Your task to perform on an android device: turn on showing notifications on the lock screen Image 0: 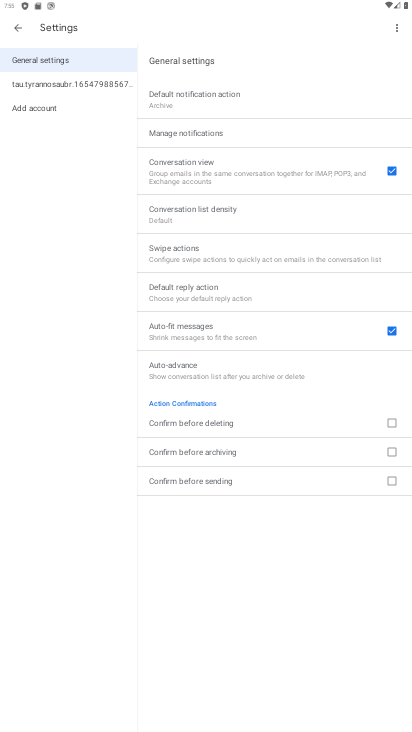
Step 0: press home button
Your task to perform on an android device: turn on showing notifications on the lock screen Image 1: 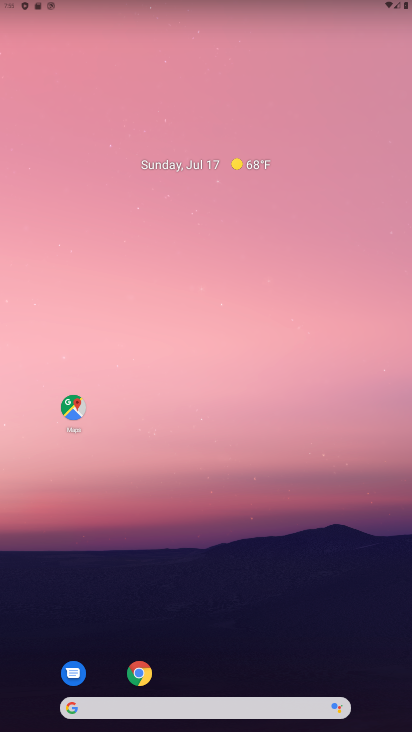
Step 1: drag from (213, 623) to (129, 88)
Your task to perform on an android device: turn on showing notifications on the lock screen Image 2: 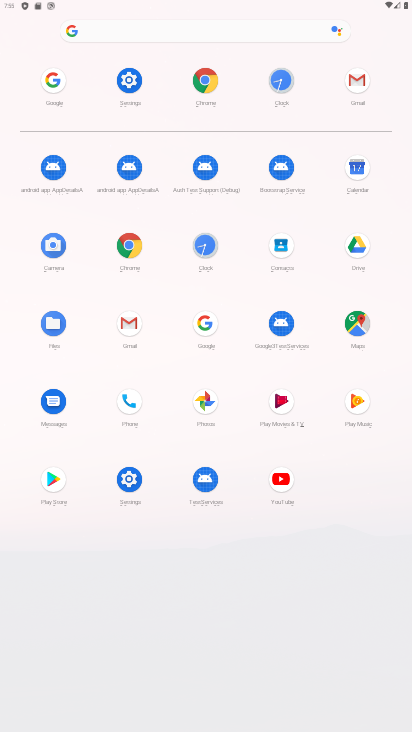
Step 2: click (126, 74)
Your task to perform on an android device: turn on showing notifications on the lock screen Image 3: 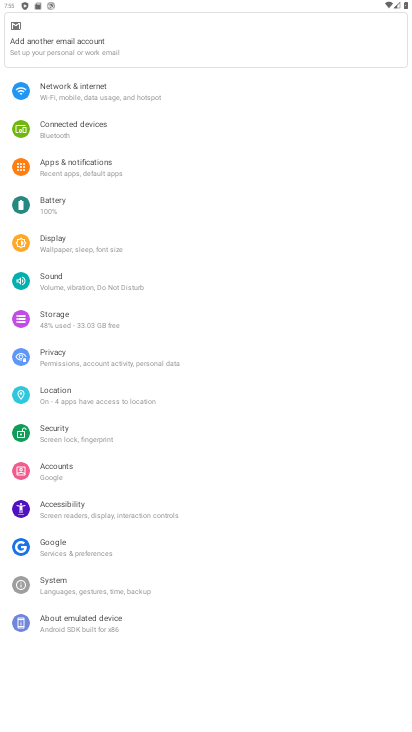
Step 3: click (82, 178)
Your task to perform on an android device: turn on showing notifications on the lock screen Image 4: 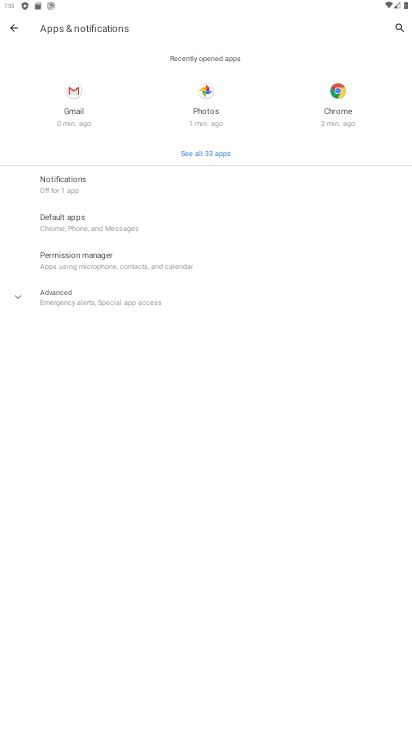
Step 4: click (61, 298)
Your task to perform on an android device: turn on showing notifications on the lock screen Image 5: 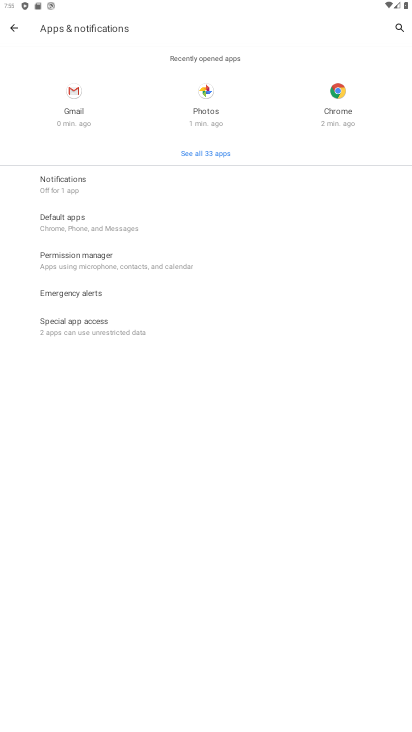
Step 5: click (67, 184)
Your task to perform on an android device: turn on showing notifications on the lock screen Image 6: 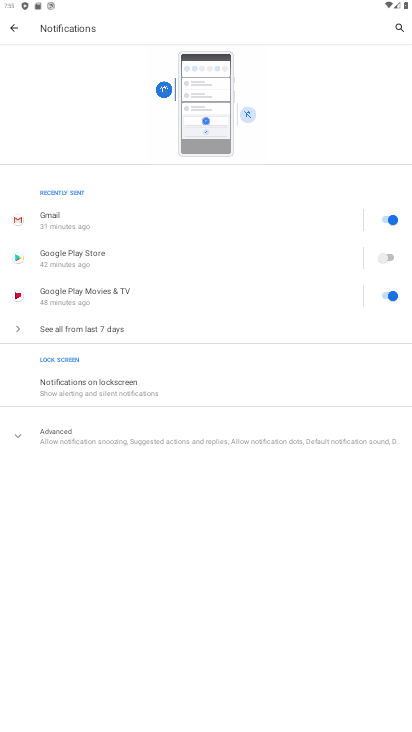
Step 6: click (56, 385)
Your task to perform on an android device: turn on showing notifications on the lock screen Image 7: 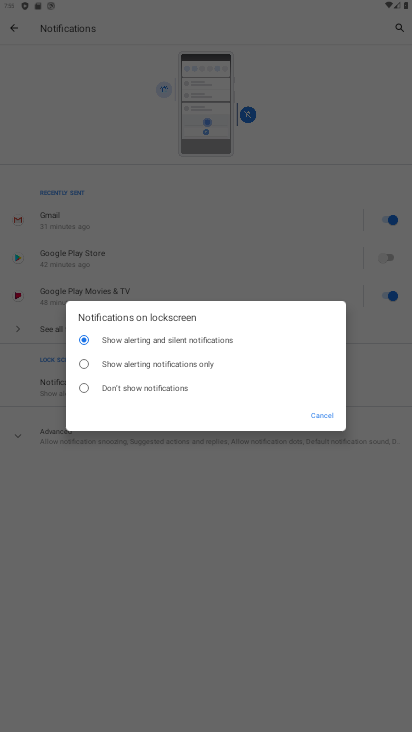
Step 7: click (97, 362)
Your task to perform on an android device: turn on showing notifications on the lock screen Image 8: 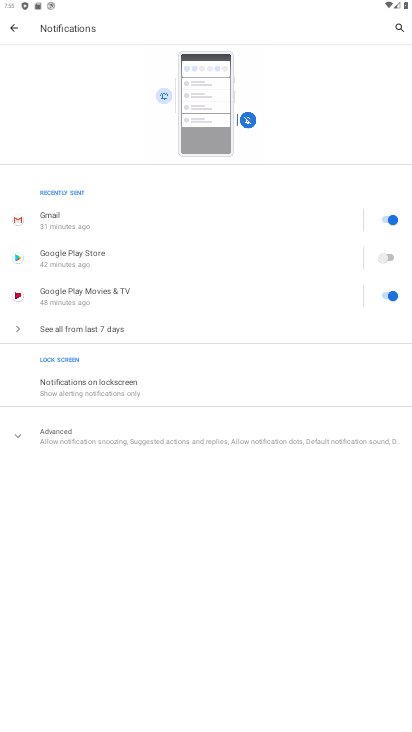
Step 8: task complete